Your task to perform on an android device: Open location settings Image 0: 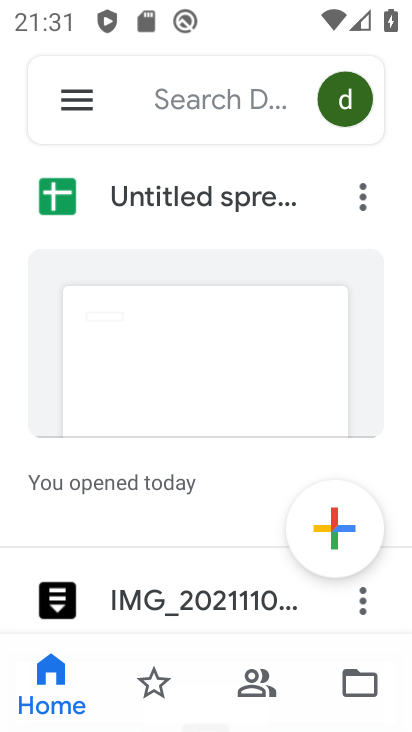
Step 0: press home button
Your task to perform on an android device: Open location settings Image 1: 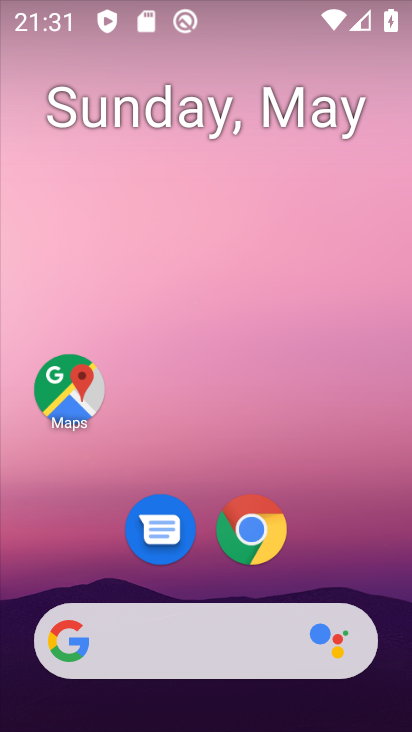
Step 1: drag from (320, 567) to (330, 31)
Your task to perform on an android device: Open location settings Image 2: 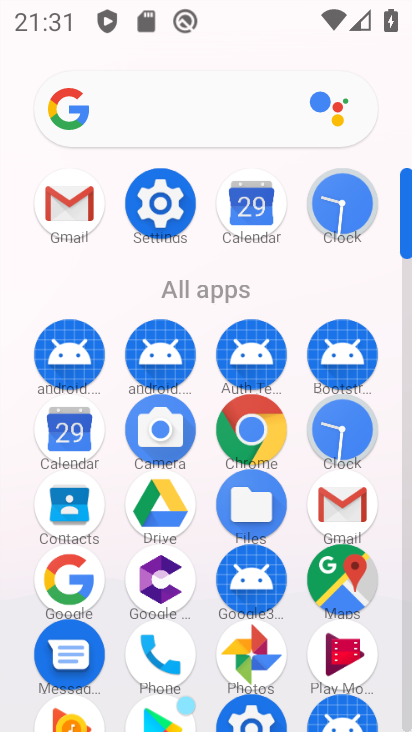
Step 2: click (167, 196)
Your task to perform on an android device: Open location settings Image 3: 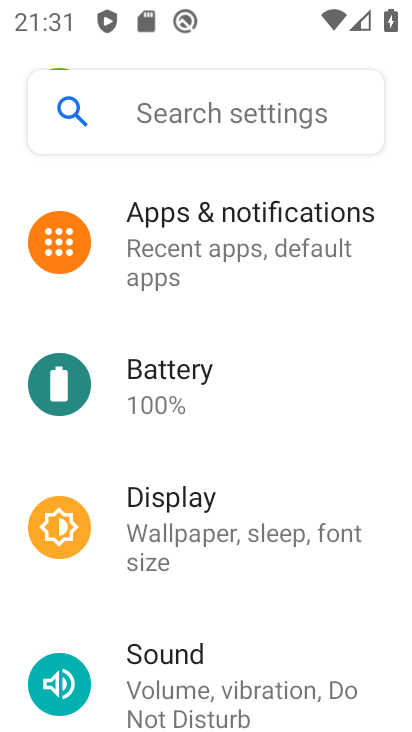
Step 3: drag from (213, 585) to (224, 247)
Your task to perform on an android device: Open location settings Image 4: 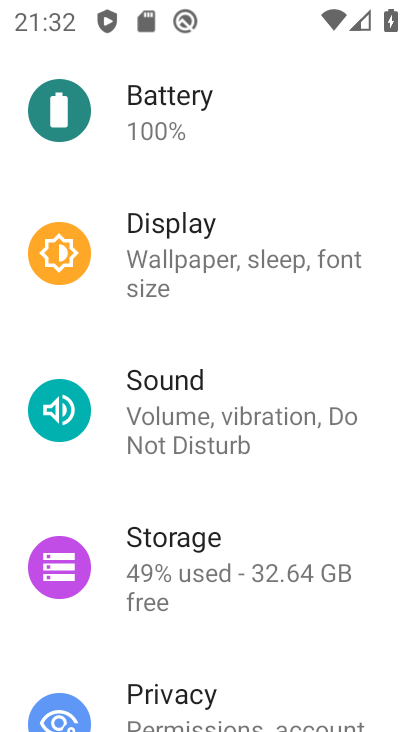
Step 4: drag from (211, 544) to (294, 137)
Your task to perform on an android device: Open location settings Image 5: 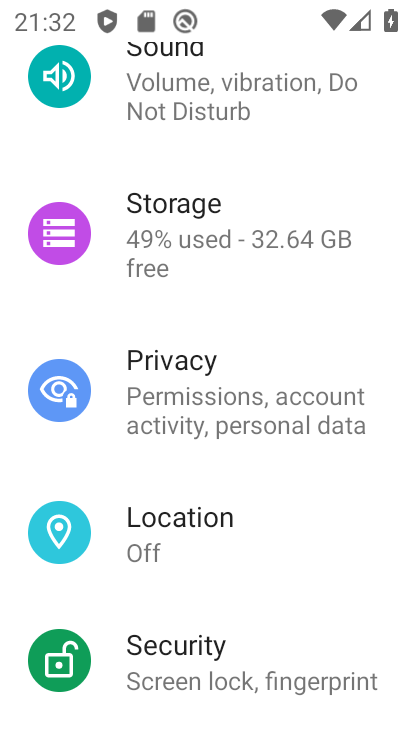
Step 5: click (203, 544)
Your task to perform on an android device: Open location settings Image 6: 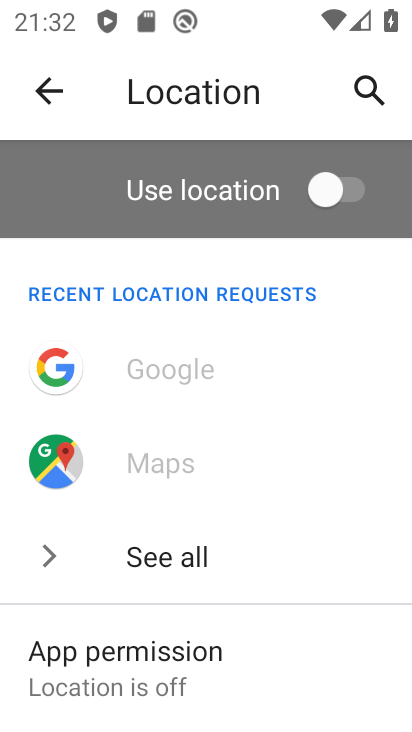
Step 6: task complete